Your task to perform on an android device: turn on improve location accuracy Image 0: 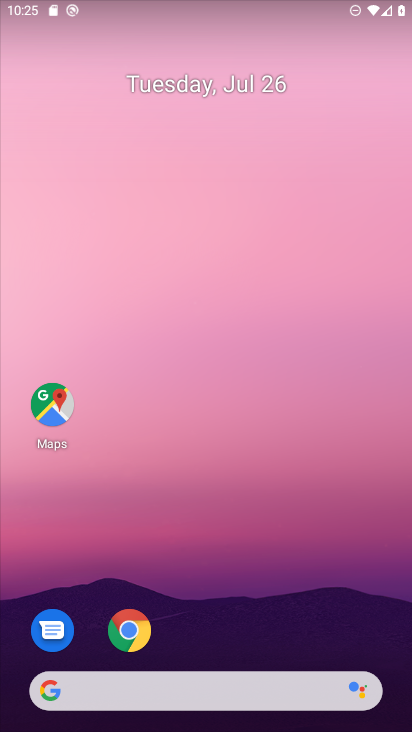
Step 0: drag from (372, 648) to (331, 239)
Your task to perform on an android device: turn on improve location accuracy Image 1: 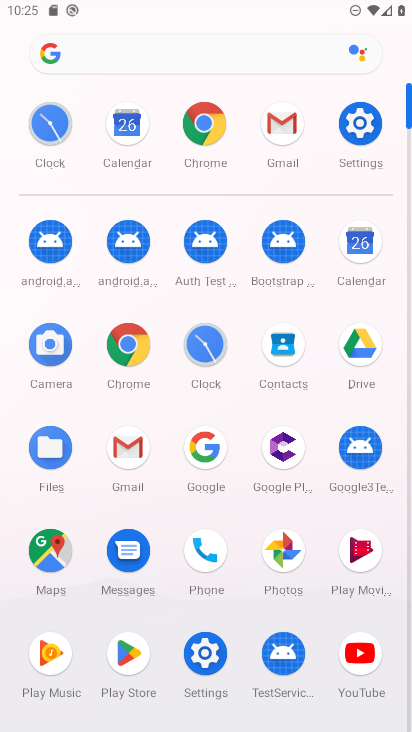
Step 1: click (203, 652)
Your task to perform on an android device: turn on improve location accuracy Image 2: 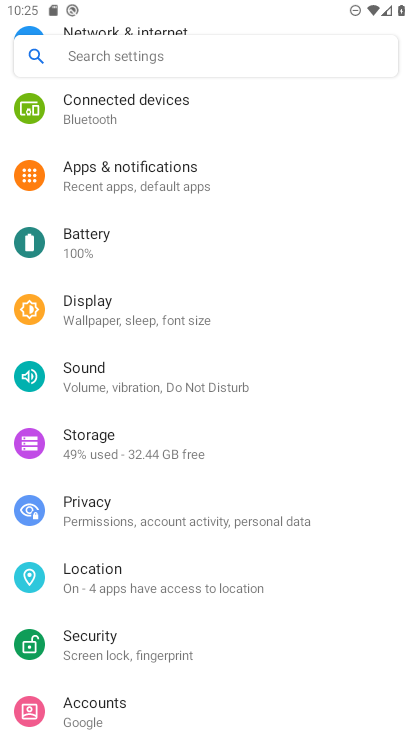
Step 2: drag from (314, 661) to (296, 309)
Your task to perform on an android device: turn on improve location accuracy Image 3: 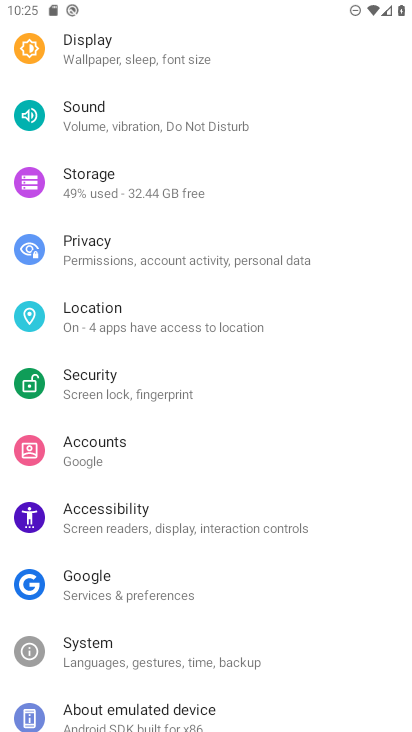
Step 3: click (108, 316)
Your task to perform on an android device: turn on improve location accuracy Image 4: 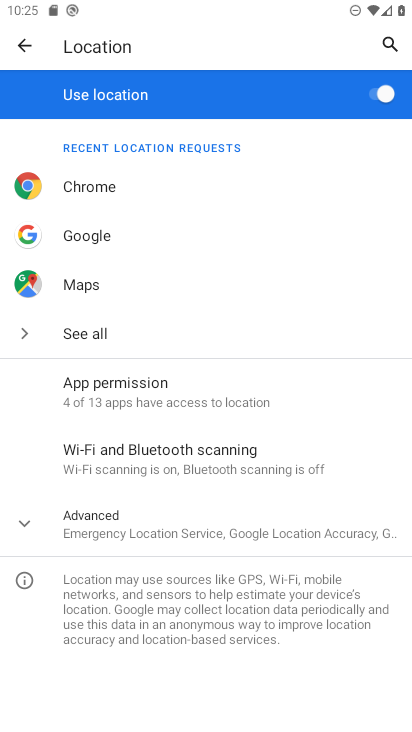
Step 4: click (51, 533)
Your task to perform on an android device: turn on improve location accuracy Image 5: 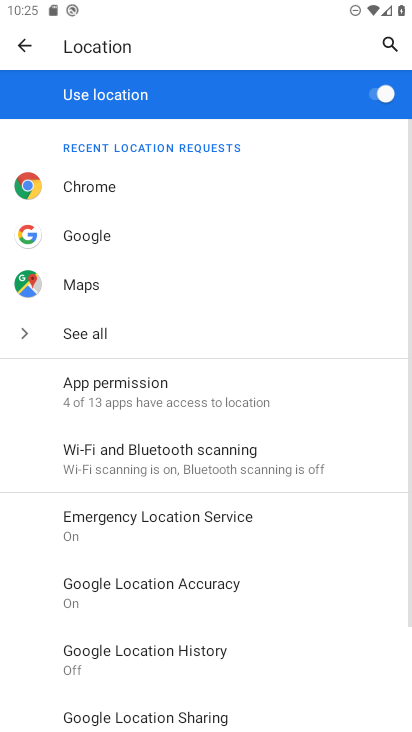
Step 5: drag from (232, 518) to (237, 322)
Your task to perform on an android device: turn on improve location accuracy Image 6: 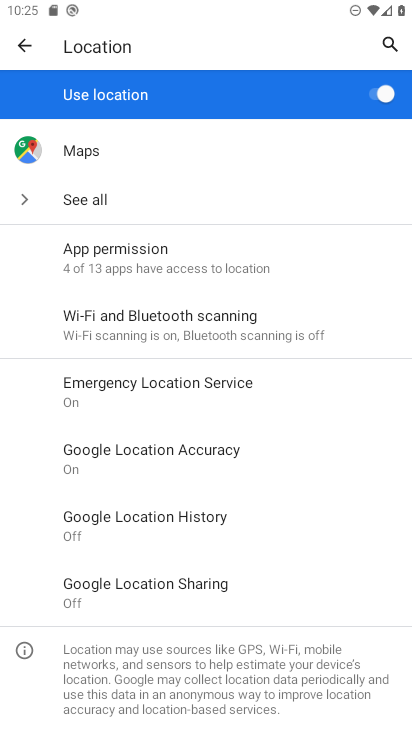
Step 6: click (187, 459)
Your task to perform on an android device: turn on improve location accuracy Image 7: 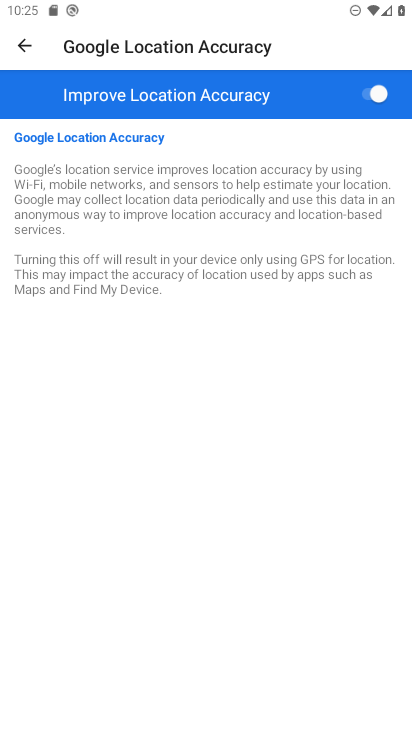
Step 7: task complete